Your task to perform on an android device: stop showing notifications on the lock screen Image 0: 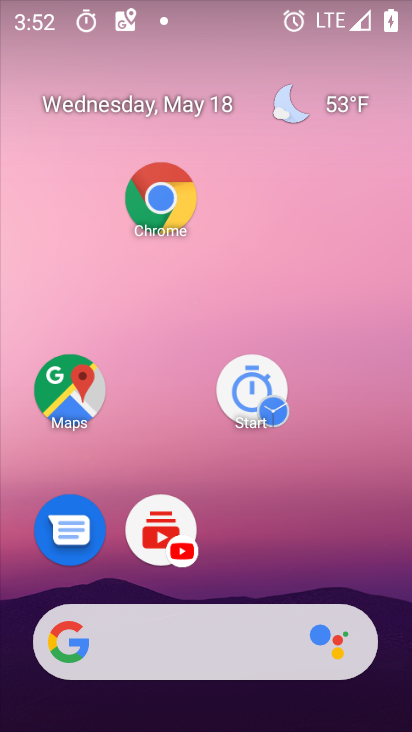
Step 0: drag from (269, 477) to (181, 73)
Your task to perform on an android device: stop showing notifications on the lock screen Image 1: 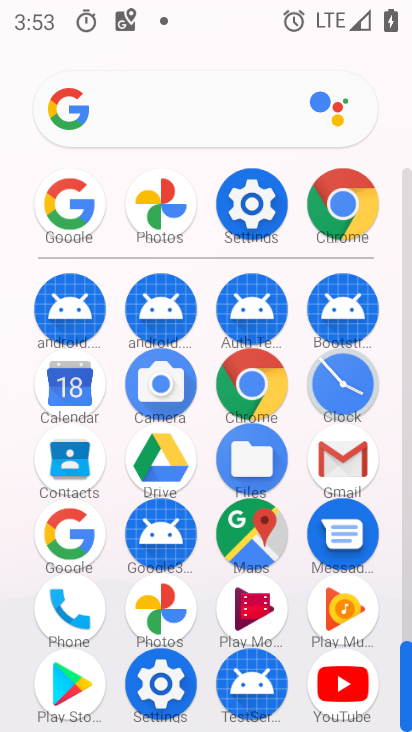
Step 1: click (242, 195)
Your task to perform on an android device: stop showing notifications on the lock screen Image 2: 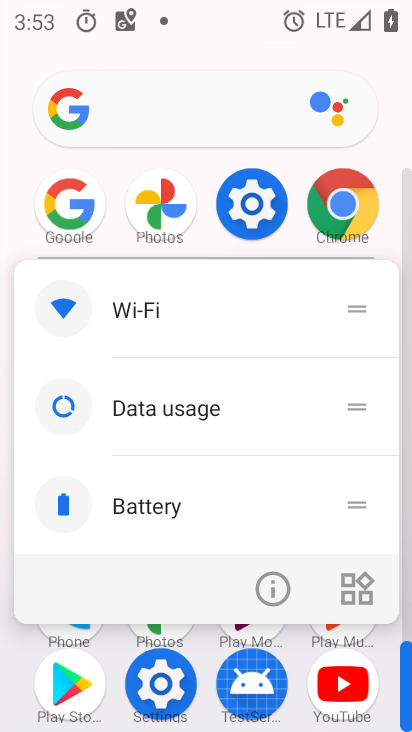
Step 2: click (243, 209)
Your task to perform on an android device: stop showing notifications on the lock screen Image 3: 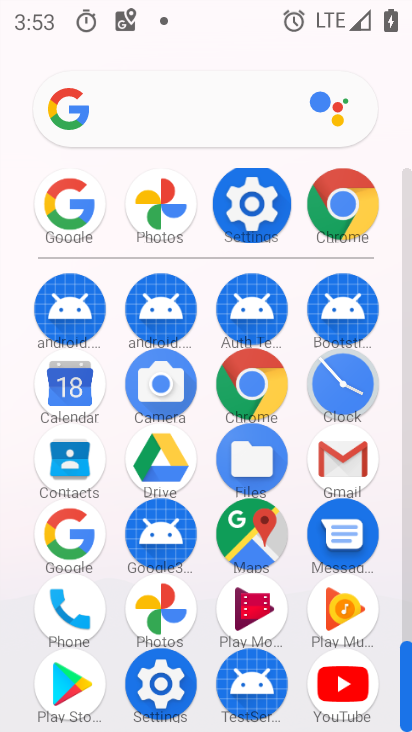
Step 3: click (243, 209)
Your task to perform on an android device: stop showing notifications on the lock screen Image 4: 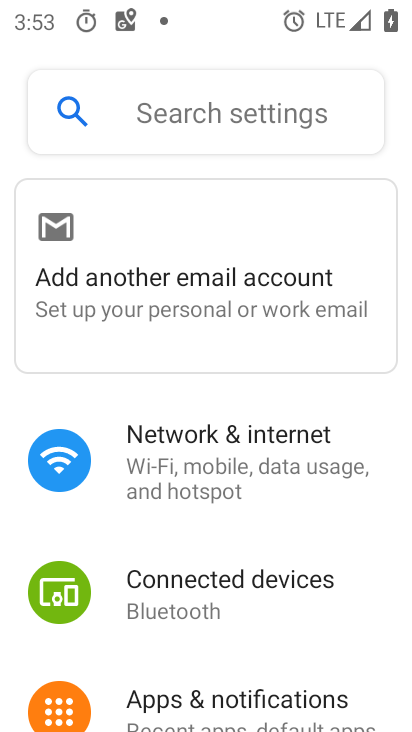
Step 4: drag from (211, 614) to (179, 275)
Your task to perform on an android device: stop showing notifications on the lock screen Image 5: 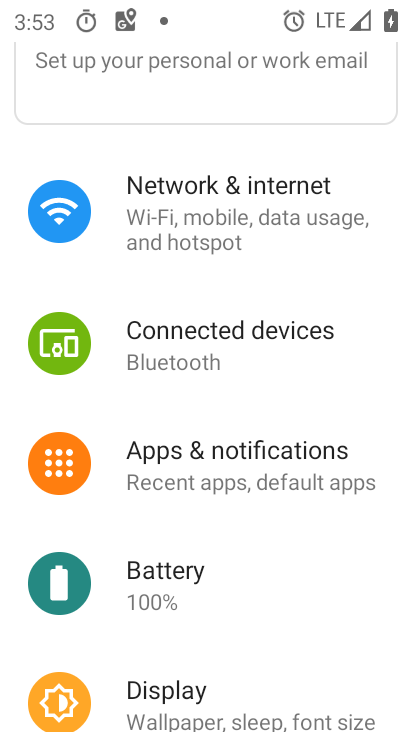
Step 5: click (198, 460)
Your task to perform on an android device: stop showing notifications on the lock screen Image 6: 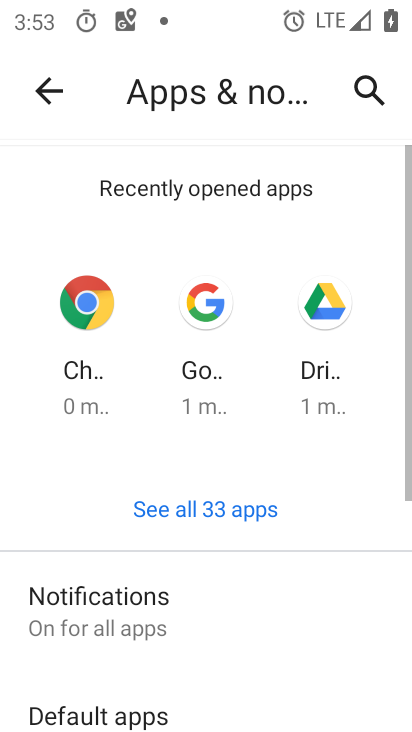
Step 6: drag from (89, 623) to (107, 259)
Your task to perform on an android device: stop showing notifications on the lock screen Image 7: 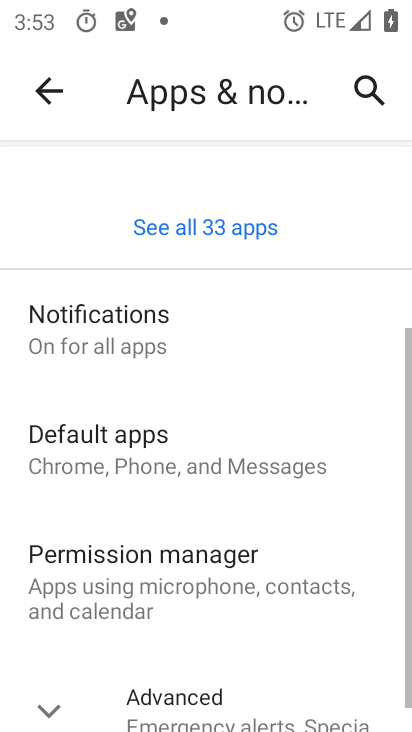
Step 7: drag from (126, 566) to (174, 219)
Your task to perform on an android device: stop showing notifications on the lock screen Image 8: 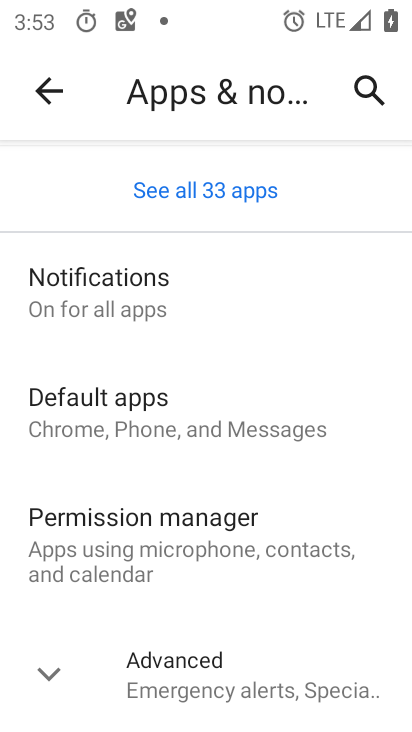
Step 8: drag from (175, 605) to (192, 171)
Your task to perform on an android device: stop showing notifications on the lock screen Image 9: 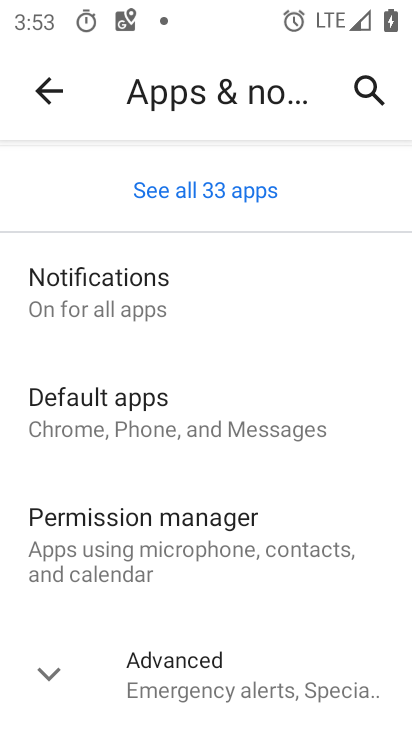
Step 9: click (80, 300)
Your task to perform on an android device: stop showing notifications on the lock screen Image 10: 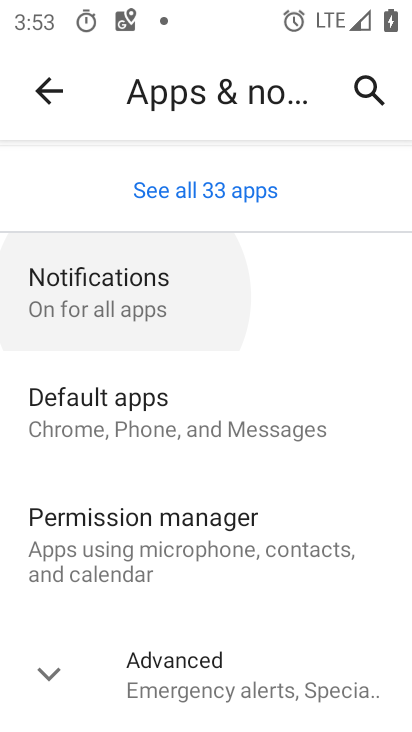
Step 10: click (80, 300)
Your task to perform on an android device: stop showing notifications on the lock screen Image 11: 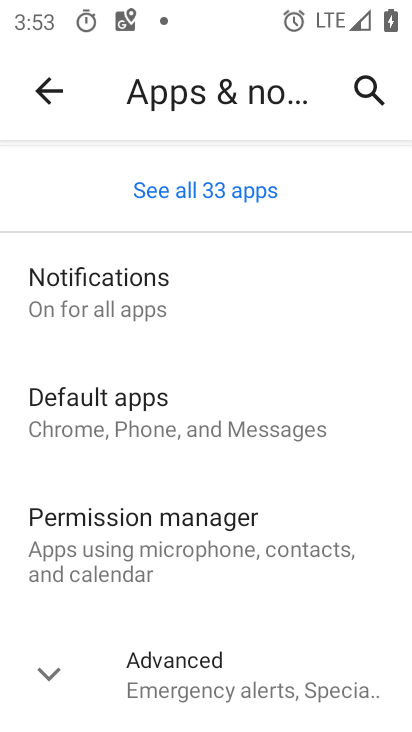
Step 11: click (80, 300)
Your task to perform on an android device: stop showing notifications on the lock screen Image 12: 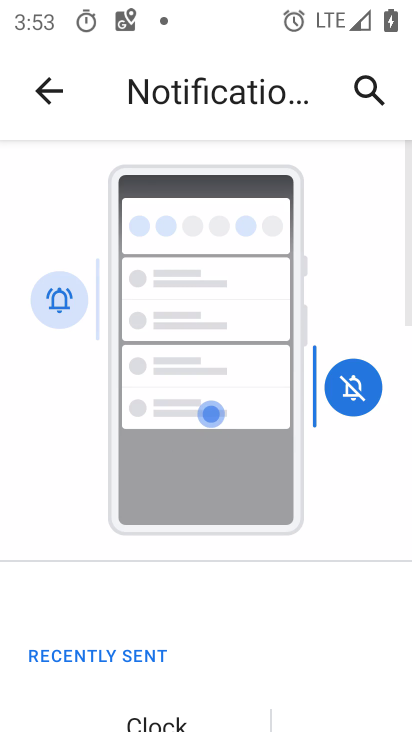
Step 12: drag from (173, 599) to (174, 192)
Your task to perform on an android device: stop showing notifications on the lock screen Image 13: 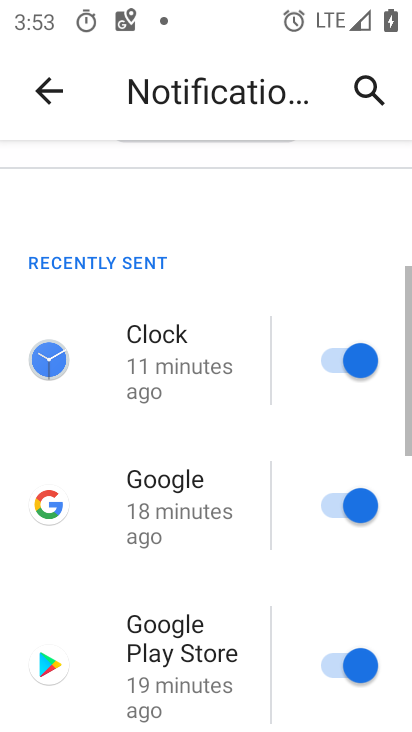
Step 13: drag from (190, 631) to (175, 222)
Your task to perform on an android device: stop showing notifications on the lock screen Image 14: 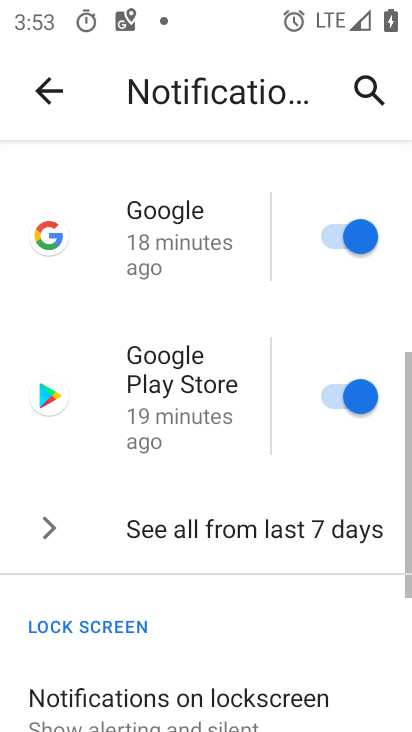
Step 14: drag from (168, 272) to (172, 179)
Your task to perform on an android device: stop showing notifications on the lock screen Image 15: 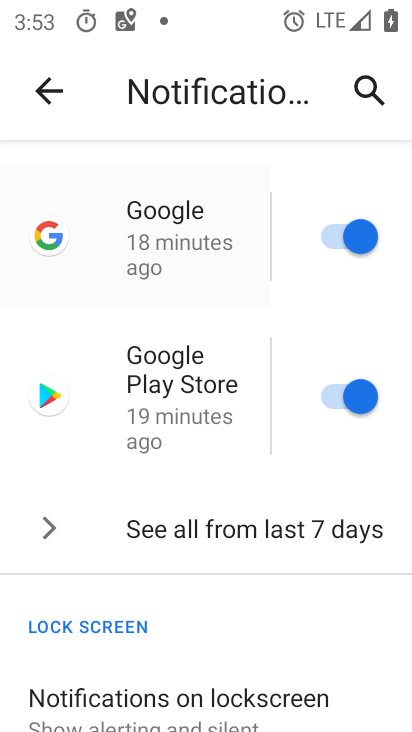
Step 15: drag from (124, 554) to (183, 138)
Your task to perform on an android device: stop showing notifications on the lock screen Image 16: 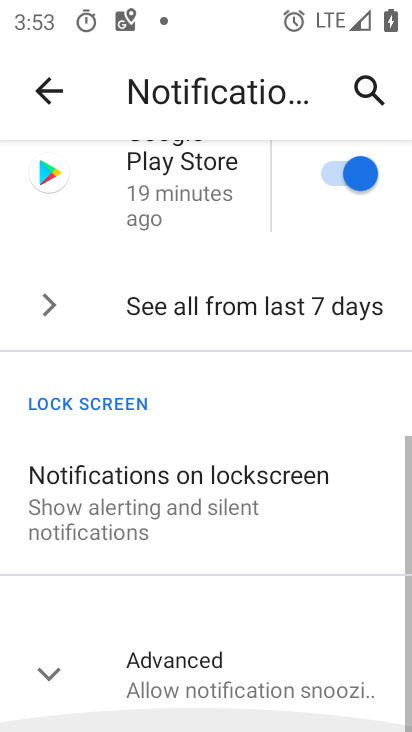
Step 16: drag from (232, 544) to (208, 205)
Your task to perform on an android device: stop showing notifications on the lock screen Image 17: 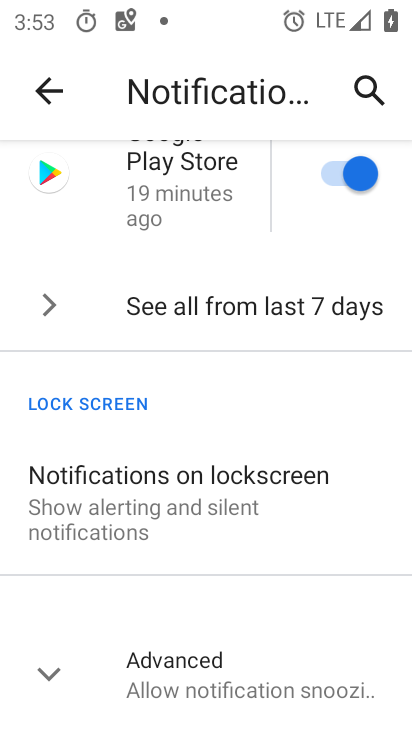
Step 17: click (121, 508)
Your task to perform on an android device: stop showing notifications on the lock screen Image 18: 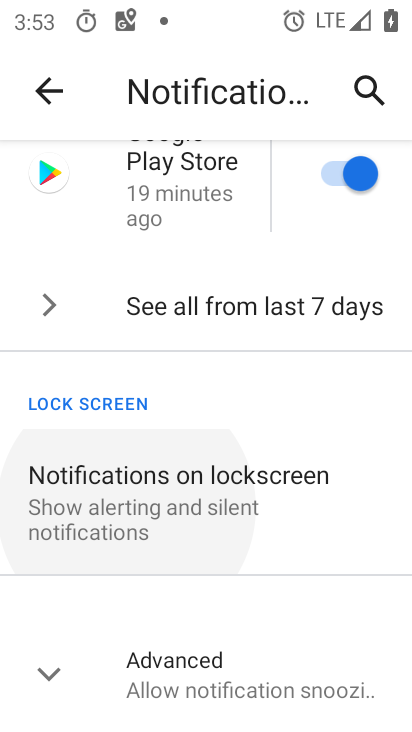
Step 18: click (121, 508)
Your task to perform on an android device: stop showing notifications on the lock screen Image 19: 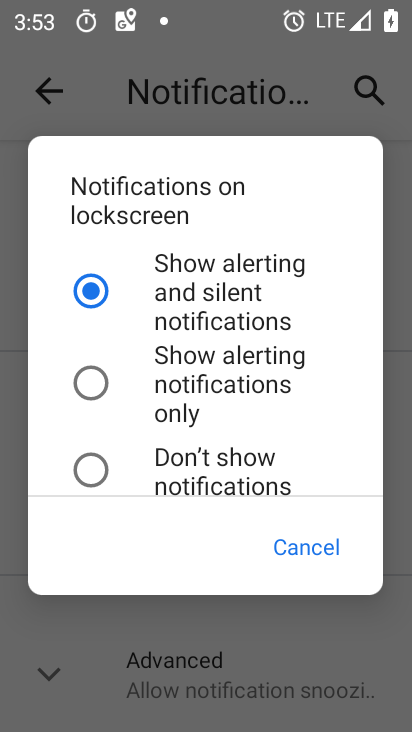
Step 19: click (80, 371)
Your task to perform on an android device: stop showing notifications on the lock screen Image 20: 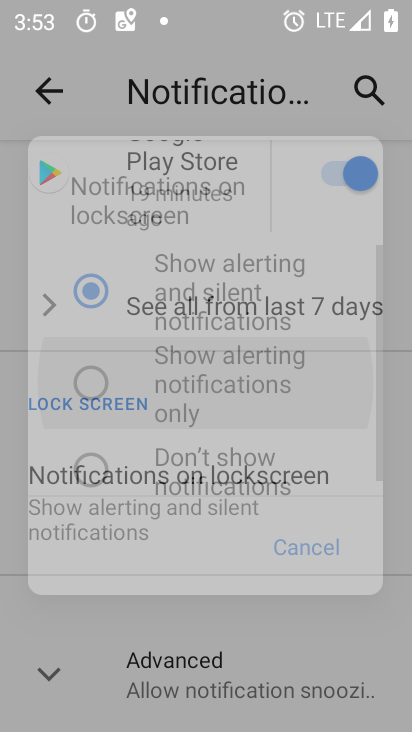
Step 20: click (81, 370)
Your task to perform on an android device: stop showing notifications on the lock screen Image 21: 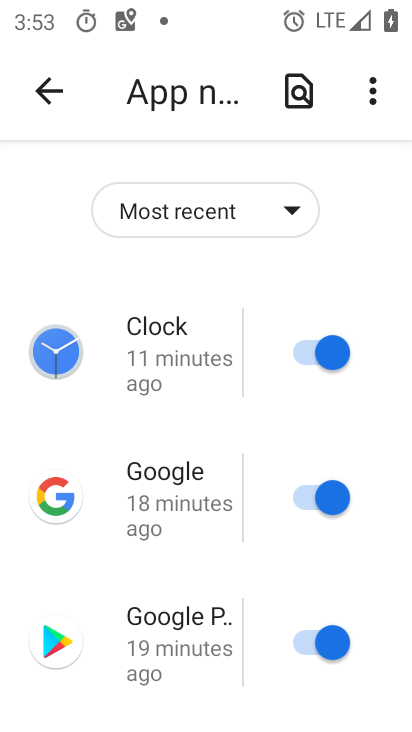
Step 21: click (49, 87)
Your task to perform on an android device: stop showing notifications on the lock screen Image 22: 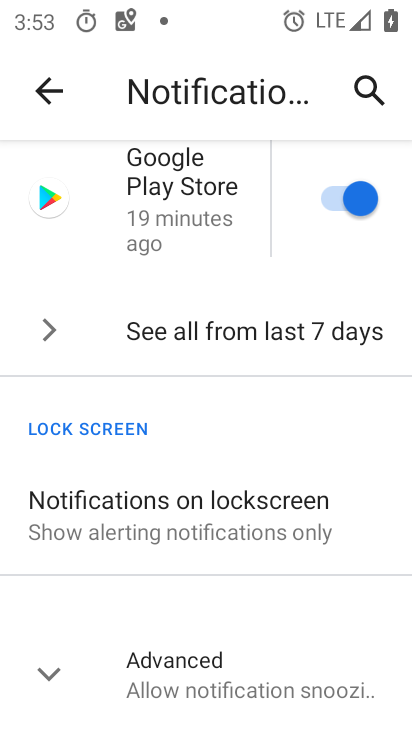
Step 22: task complete